Your task to perform on an android device: move an email to a new category in the gmail app Image 0: 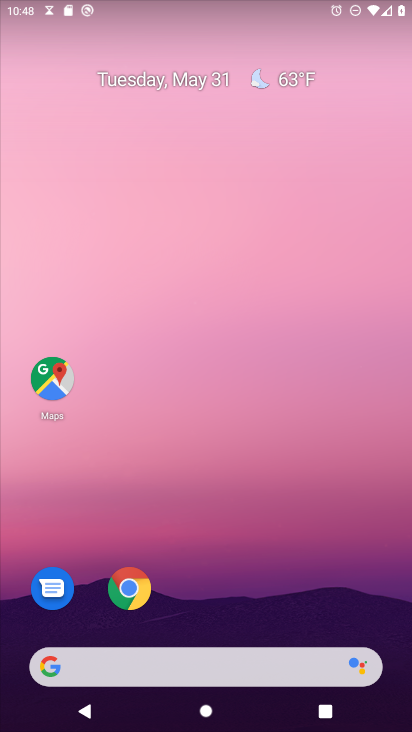
Step 0: drag from (277, 576) to (169, 17)
Your task to perform on an android device: move an email to a new category in the gmail app Image 1: 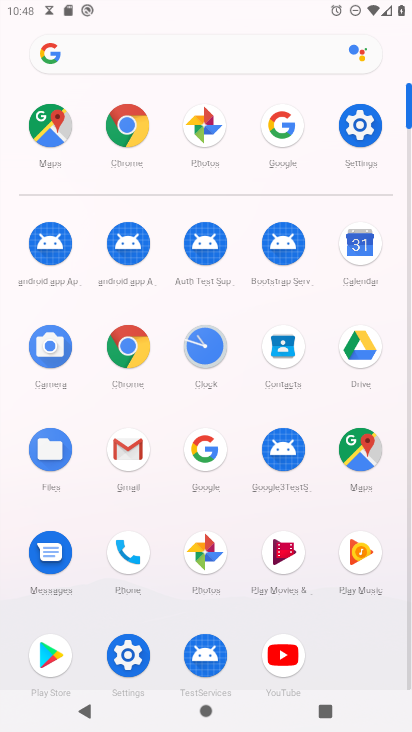
Step 1: click (128, 447)
Your task to perform on an android device: move an email to a new category in the gmail app Image 2: 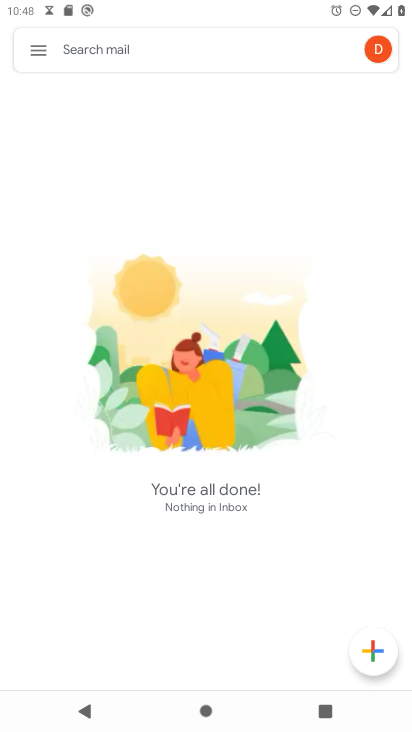
Step 2: click (40, 51)
Your task to perform on an android device: move an email to a new category in the gmail app Image 3: 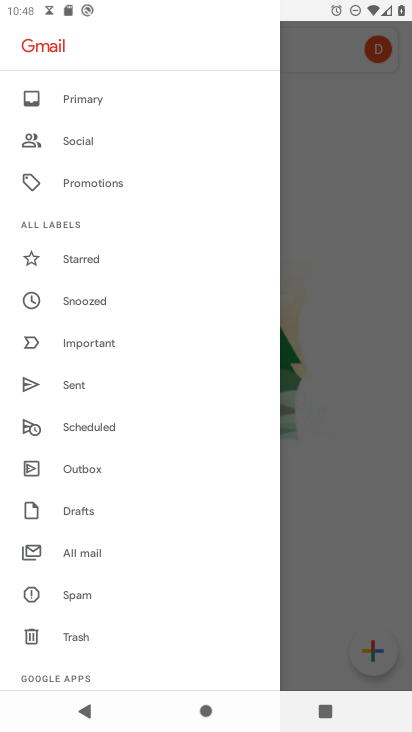
Step 3: click (86, 93)
Your task to perform on an android device: move an email to a new category in the gmail app Image 4: 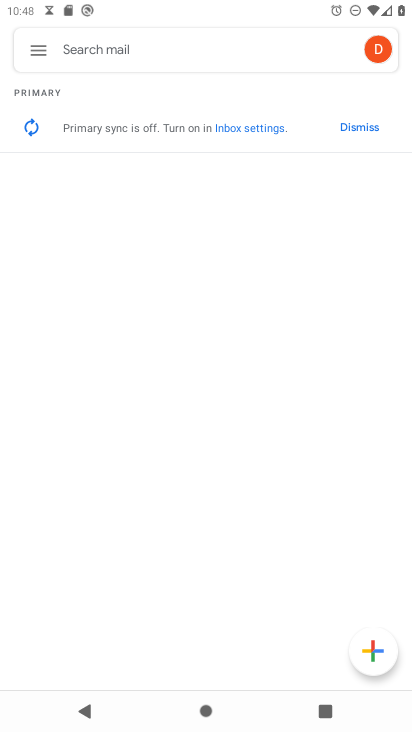
Step 4: click (43, 54)
Your task to perform on an android device: move an email to a new category in the gmail app Image 5: 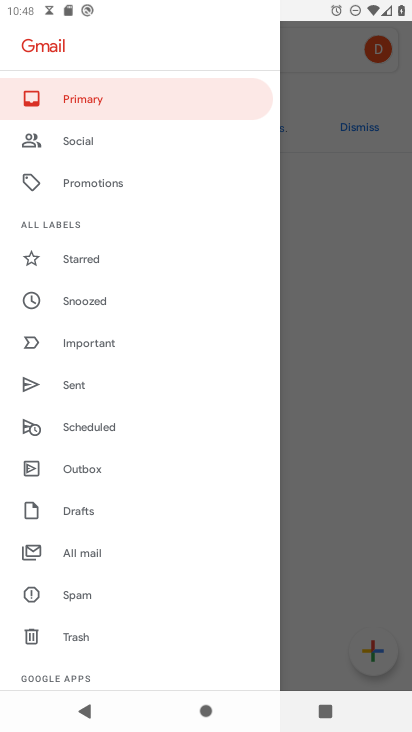
Step 5: click (92, 557)
Your task to perform on an android device: move an email to a new category in the gmail app Image 6: 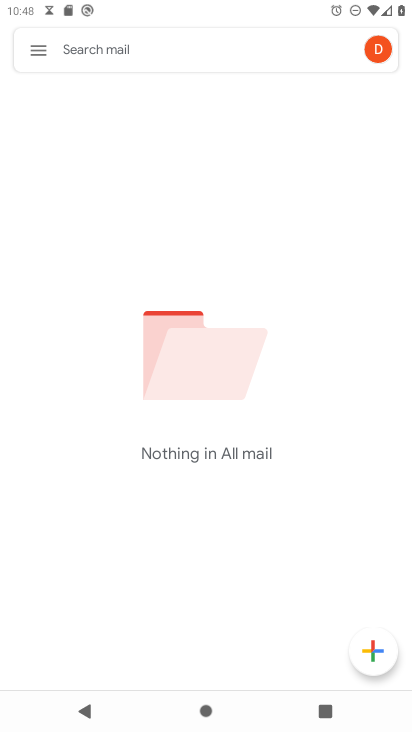
Step 6: click (37, 57)
Your task to perform on an android device: move an email to a new category in the gmail app Image 7: 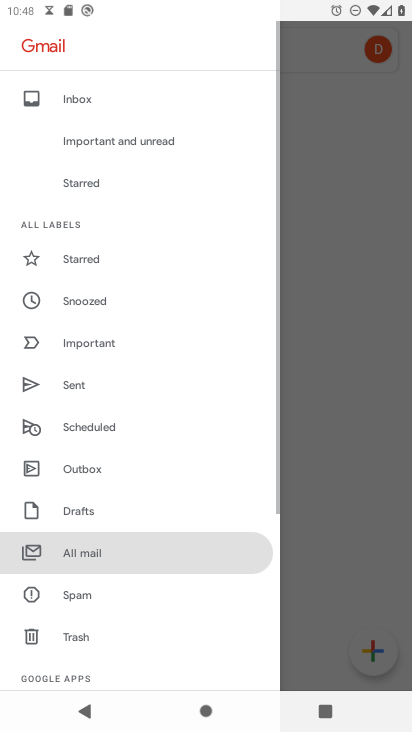
Step 7: drag from (88, 179) to (83, 333)
Your task to perform on an android device: move an email to a new category in the gmail app Image 8: 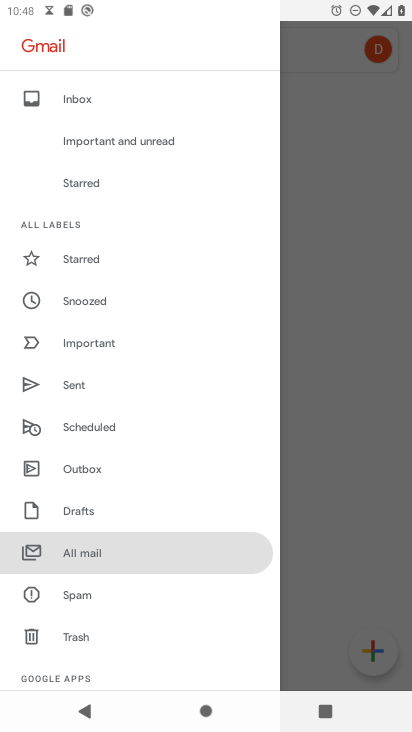
Step 8: click (85, 106)
Your task to perform on an android device: move an email to a new category in the gmail app Image 9: 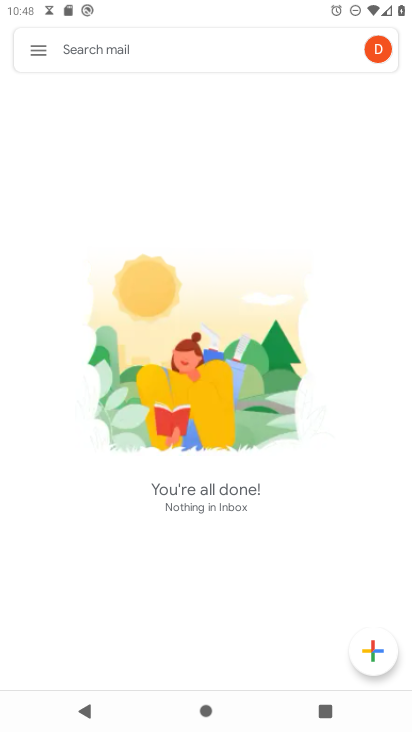
Step 9: task complete